Your task to perform on an android device: Go to Yahoo.com Image 0: 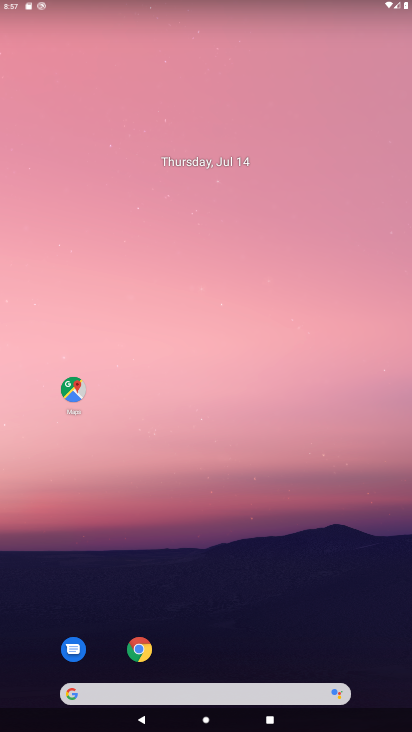
Step 0: drag from (216, 650) to (221, 63)
Your task to perform on an android device: Go to Yahoo.com Image 1: 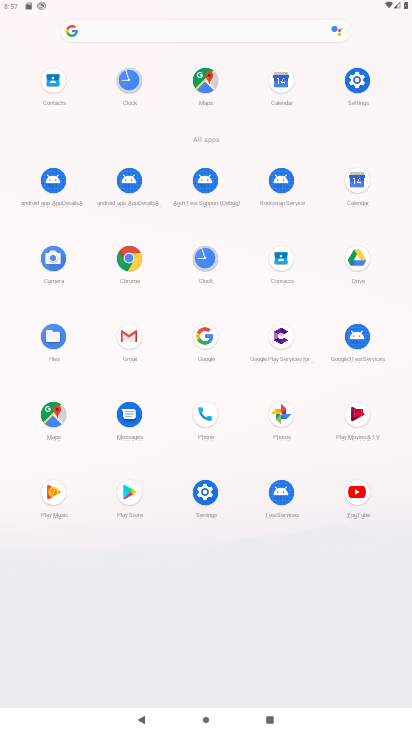
Step 1: click (139, 271)
Your task to perform on an android device: Go to Yahoo.com Image 2: 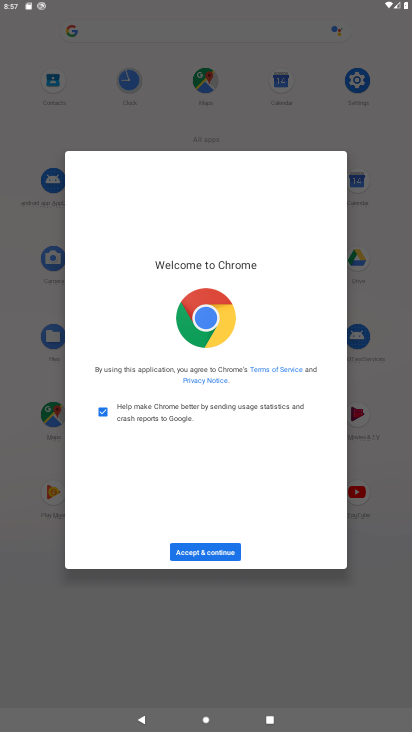
Step 2: click (217, 550)
Your task to perform on an android device: Go to Yahoo.com Image 3: 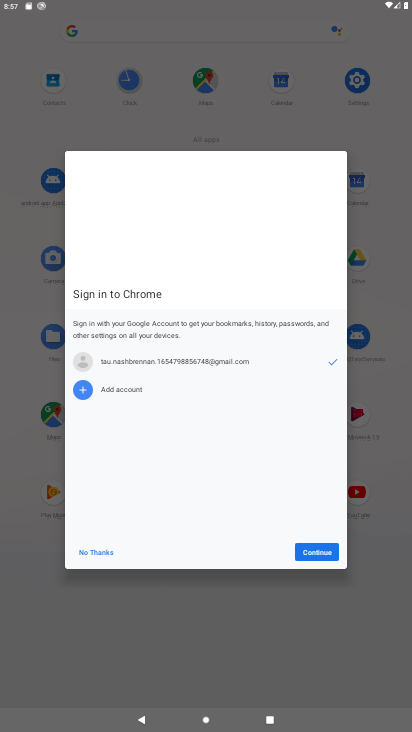
Step 3: click (323, 550)
Your task to perform on an android device: Go to Yahoo.com Image 4: 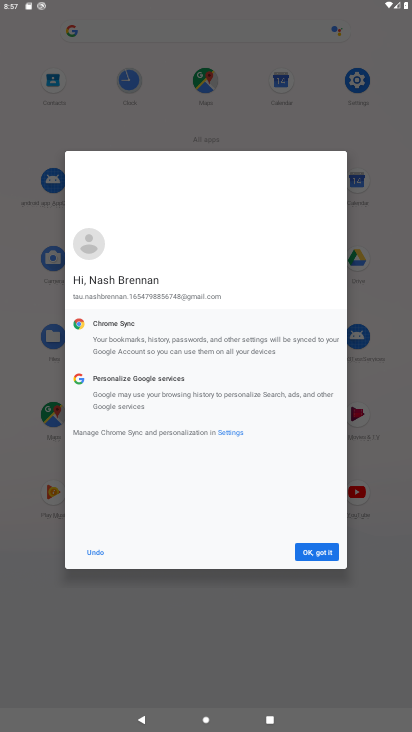
Step 4: click (312, 553)
Your task to perform on an android device: Go to Yahoo.com Image 5: 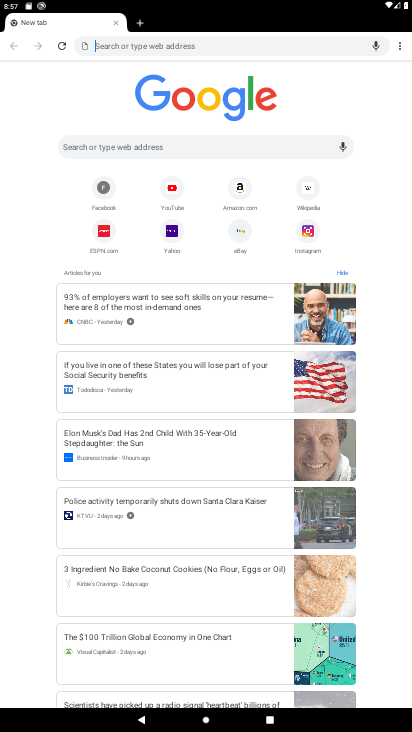
Step 5: click (171, 243)
Your task to perform on an android device: Go to Yahoo.com Image 6: 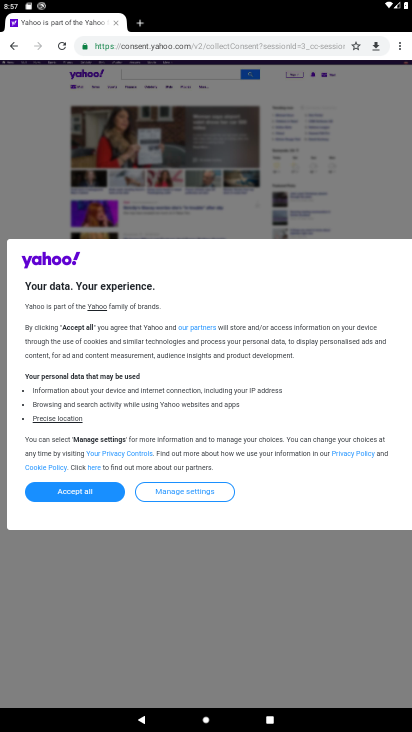
Step 6: task complete